Your task to perform on an android device: see tabs open on other devices in the chrome app Image 0: 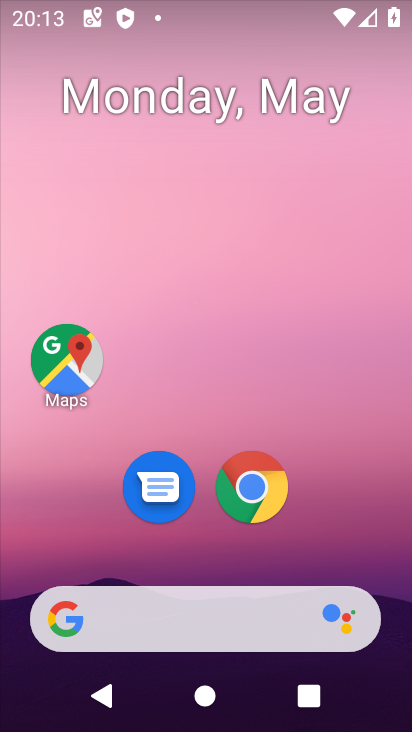
Step 0: drag from (382, 559) to (351, 141)
Your task to perform on an android device: see tabs open on other devices in the chrome app Image 1: 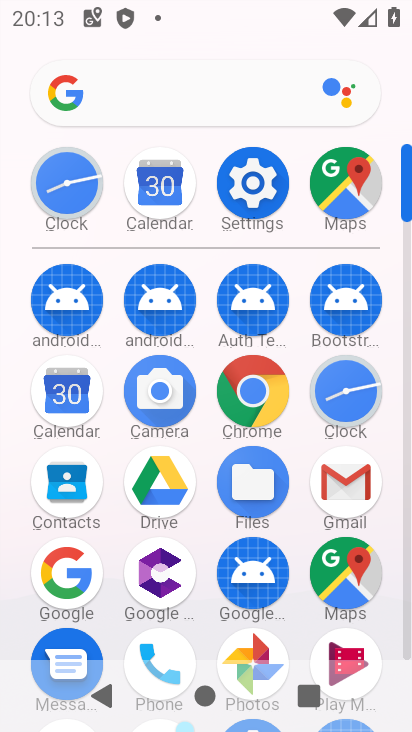
Step 1: click (274, 388)
Your task to perform on an android device: see tabs open on other devices in the chrome app Image 2: 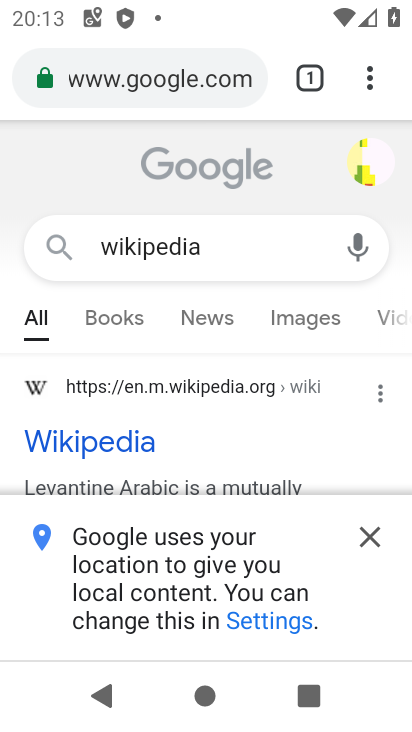
Step 2: click (368, 84)
Your task to perform on an android device: see tabs open on other devices in the chrome app Image 3: 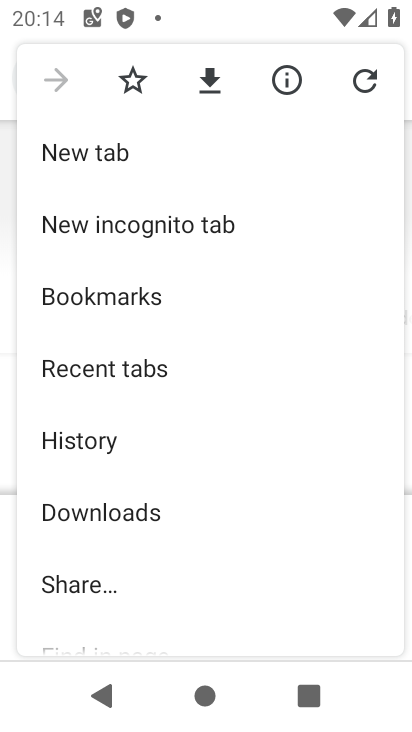
Step 3: click (162, 370)
Your task to perform on an android device: see tabs open on other devices in the chrome app Image 4: 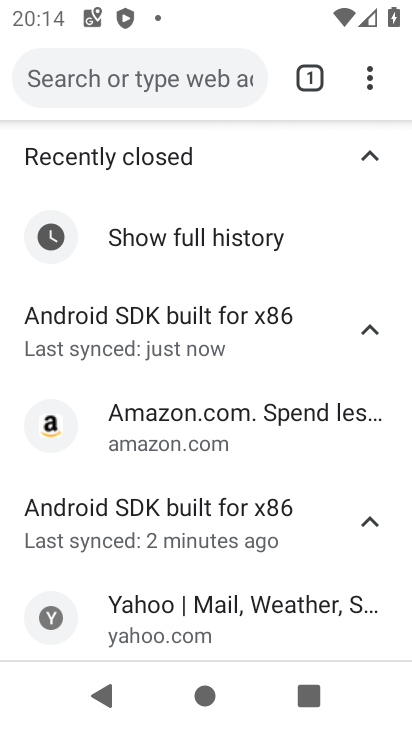
Step 4: click (309, 89)
Your task to perform on an android device: see tabs open on other devices in the chrome app Image 5: 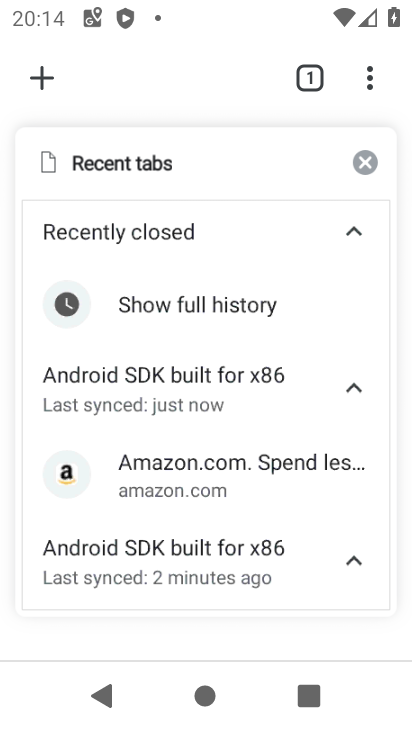
Step 5: task complete